Your task to perform on an android device: Open the calendar and show me this week's events Image 0: 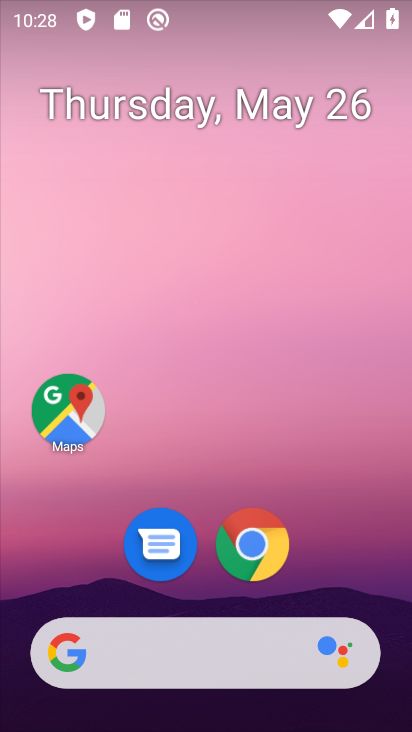
Step 0: drag from (343, 555) to (214, 59)
Your task to perform on an android device: Open the calendar and show me this week's events Image 1: 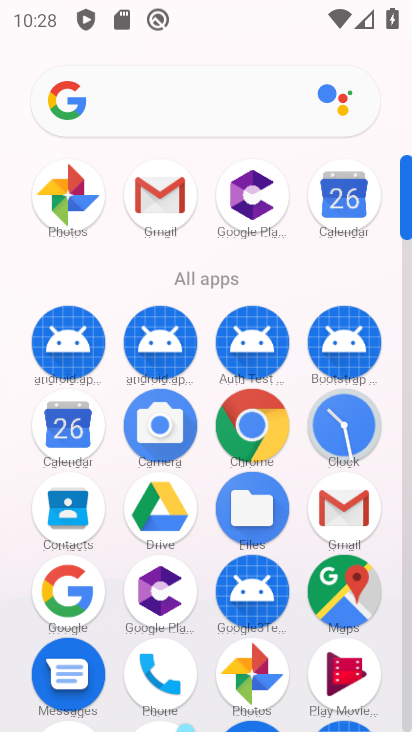
Step 1: drag from (18, 596) to (15, 286)
Your task to perform on an android device: Open the calendar and show me this week's events Image 2: 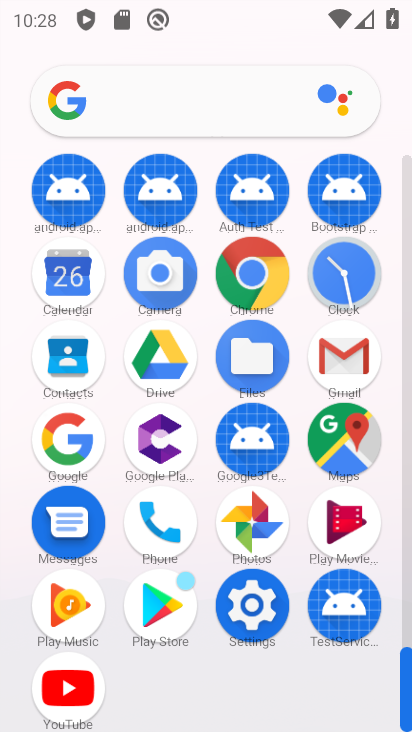
Step 2: click (73, 267)
Your task to perform on an android device: Open the calendar and show me this week's events Image 3: 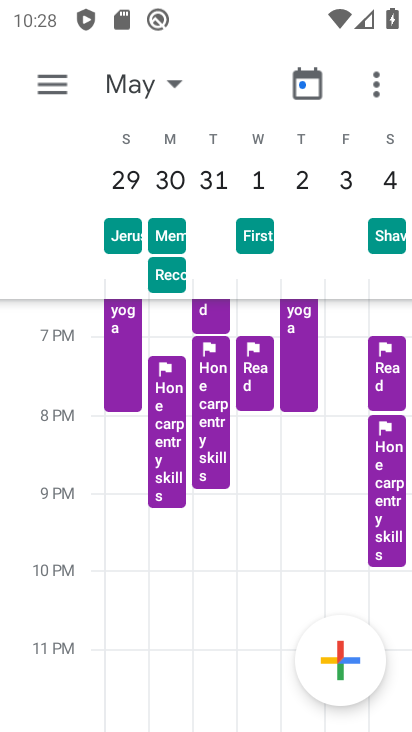
Step 3: click (125, 87)
Your task to perform on an android device: Open the calendar and show me this week's events Image 4: 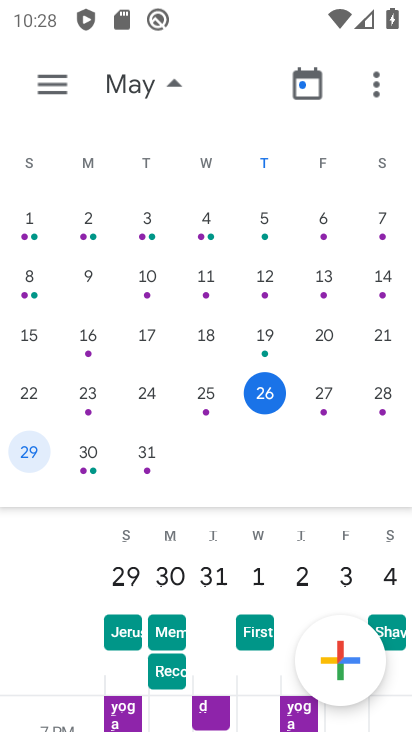
Step 4: click (51, 74)
Your task to perform on an android device: Open the calendar and show me this week's events Image 5: 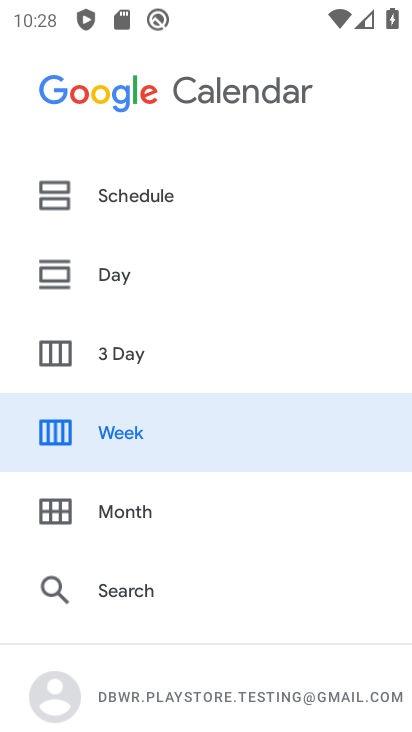
Step 5: click (123, 431)
Your task to perform on an android device: Open the calendar and show me this week's events Image 6: 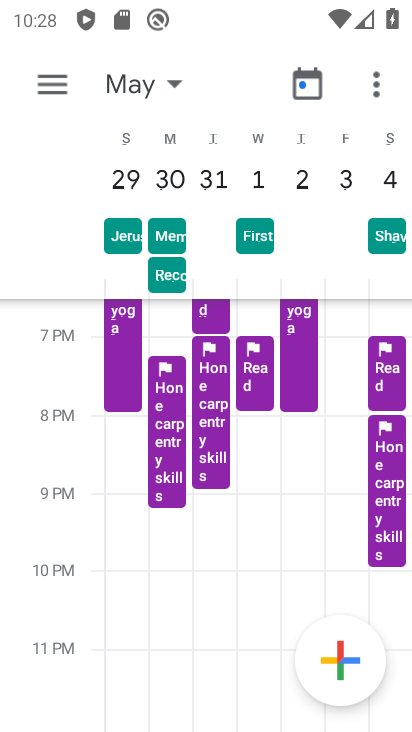
Step 6: task complete